Your task to perform on an android device: check storage Image 0: 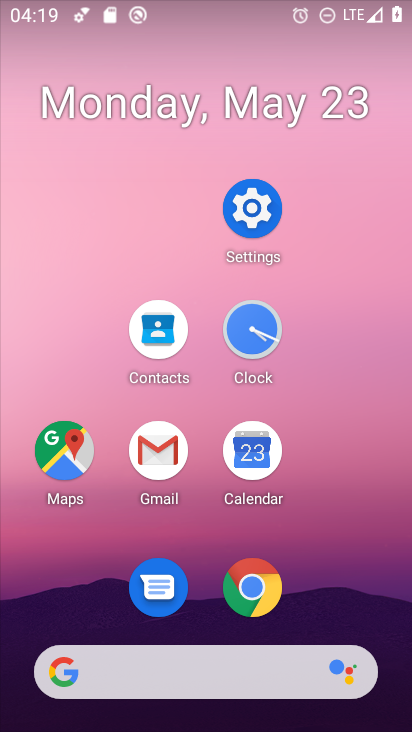
Step 0: click (246, 229)
Your task to perform on an android device: check storage Image 1: 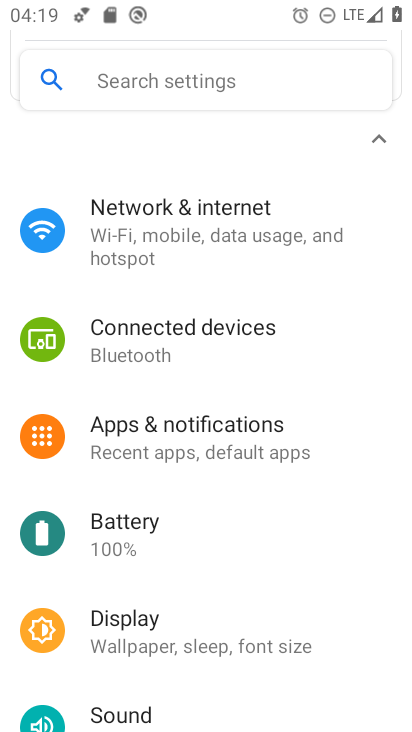
Step 1: drag from (170, 662) to (205, 263)
Your task to perform on an android device: check storage Image 2: 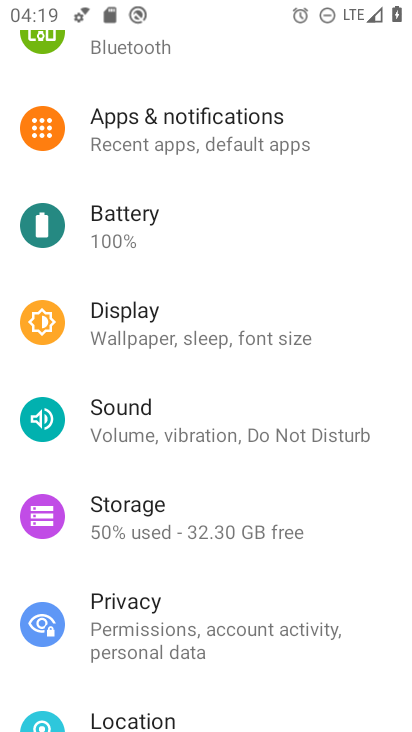
Step 2: click (192, 494)
Your task to perform on an android device: check storage Image 3: 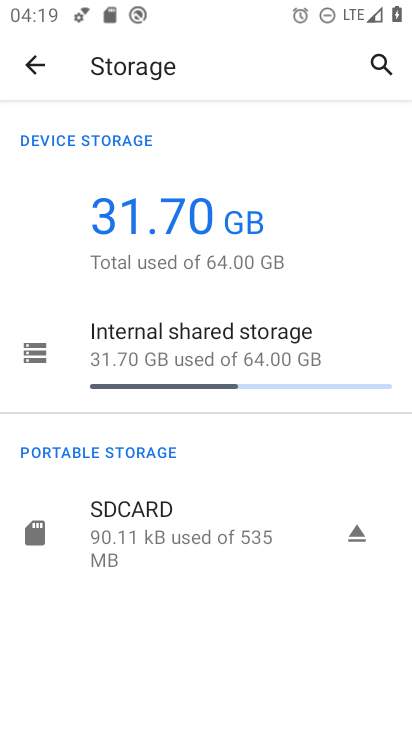
Step 3: task complete